Your task to perform on an android device: turn off location Image 0: 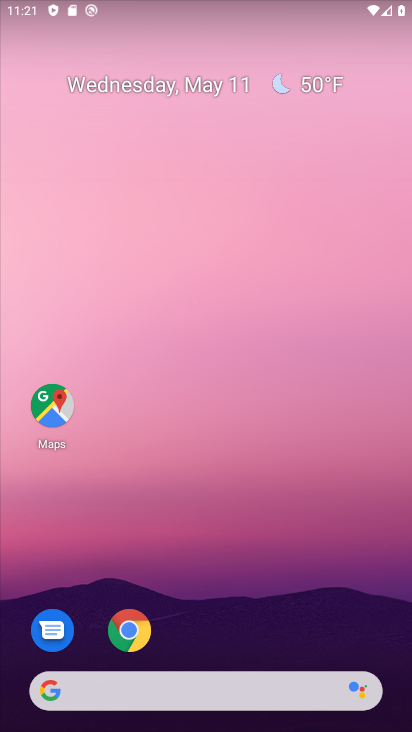
Step 0: drag from (178, 647) to (194, 268)
Your task to perform on an android device: turn off location Image 1: 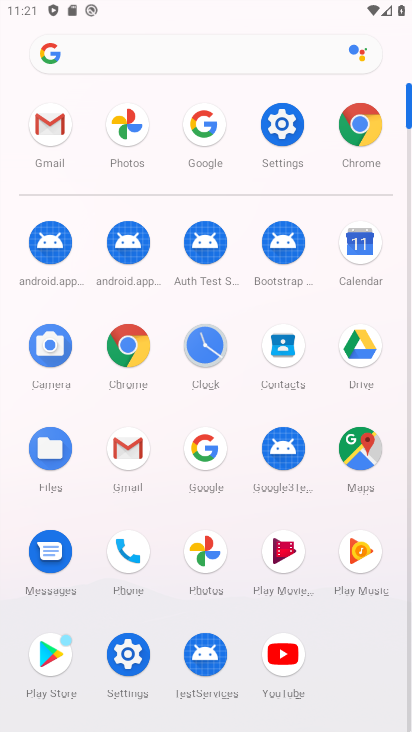
Step 1: click (283, 132)
Your task to perform on an android device: turn off location Image 2: 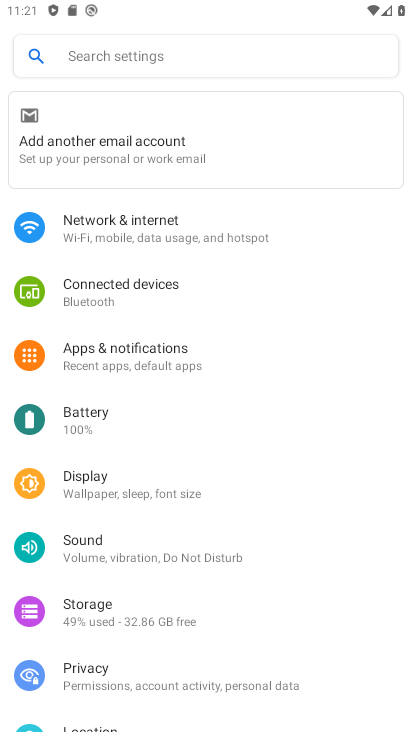
Step 2: drag from (151, 412) to (163, 185)
Your task to perform on an android device: turn off location Image 3: 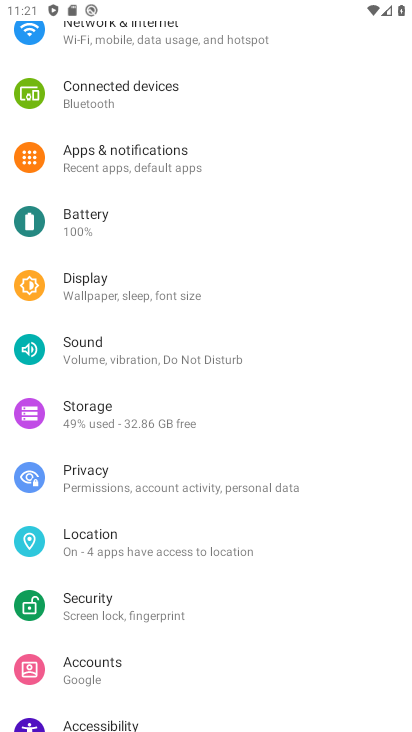
Step 3: click (171, 542)
Your task to perform on an android device: turn off location Image 4: 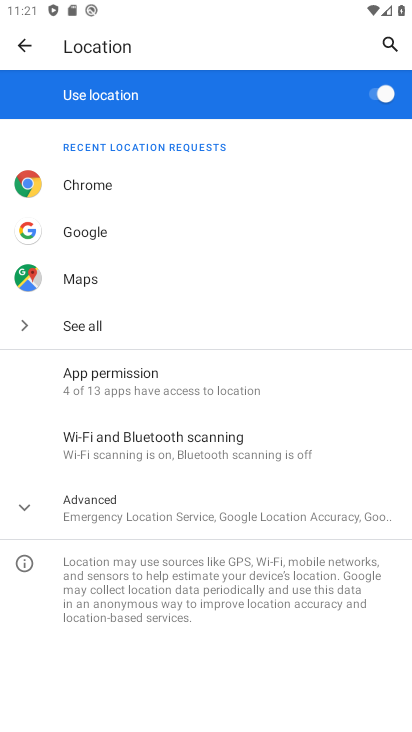
Step 4: click (370, 100)
Your task to perform on an android device: turn off location Image 5: 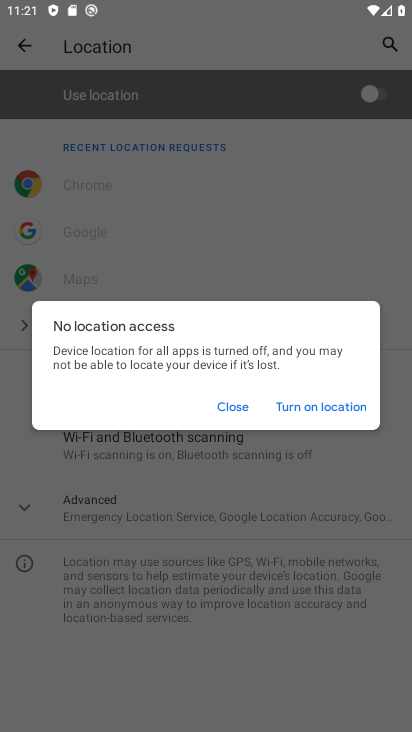
Step 5: click (236, 406)
Your task to perform on an android device: turn off location Image 6: 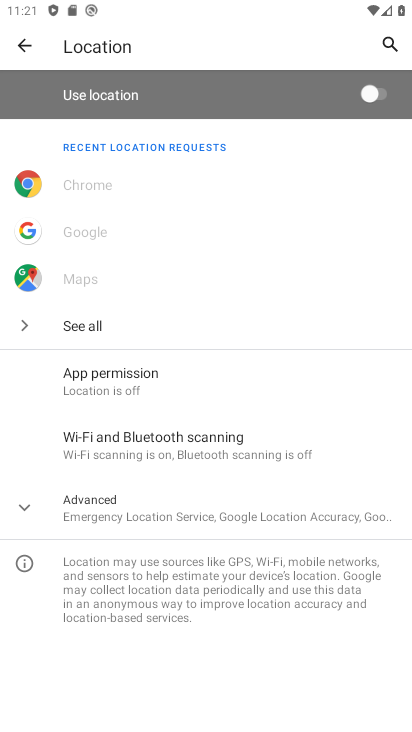
Step 6: task complete